Your task to perform on an android device: turn on javascript in the chrome app Image 0: 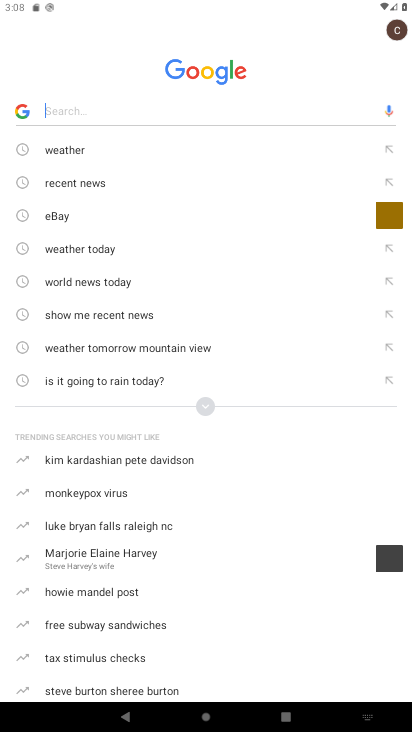
Step 0: press home button
Your task to perform on an android device: turn on javascript in the chrome app Image 1: 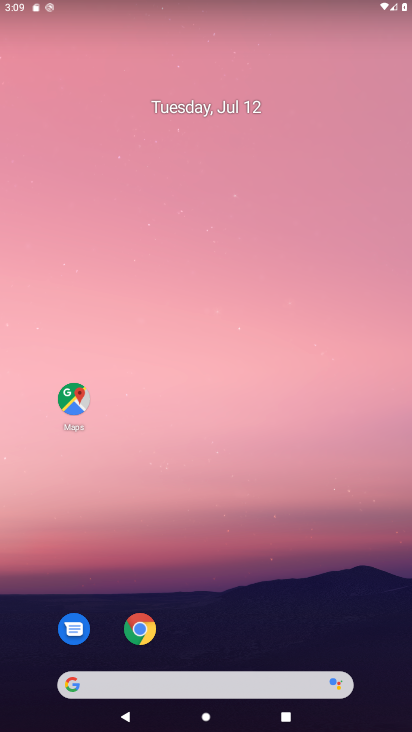
Step 1: drag from (205, 644) to (220, 338)
Your task to perform on an android device: turn on javascript in the chrome app Image 2: 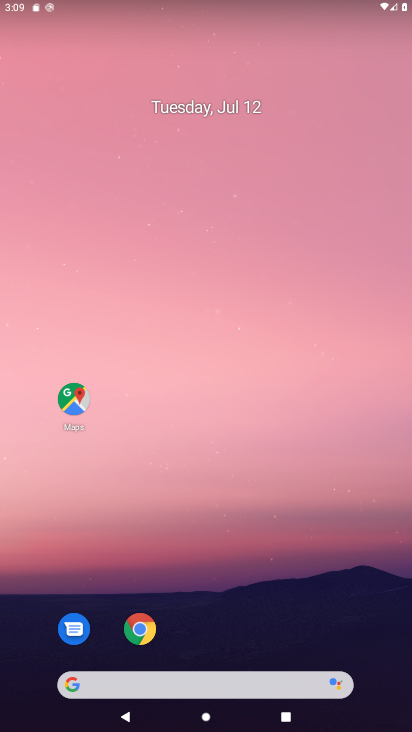
Step 2: drag from (186, 658) to (125, 74)
Your task to perform on an android device: turn on javascript in the chrome app Image 3: 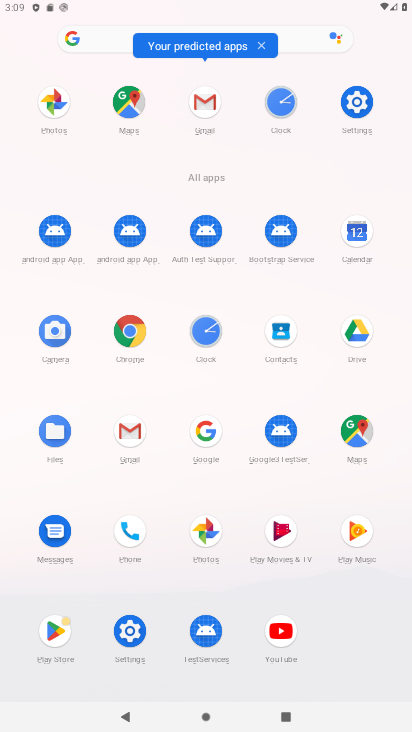
Step 3: click (119, 328)
Your task to perform on an android device: turn on javascript in the chrome app Image 4: 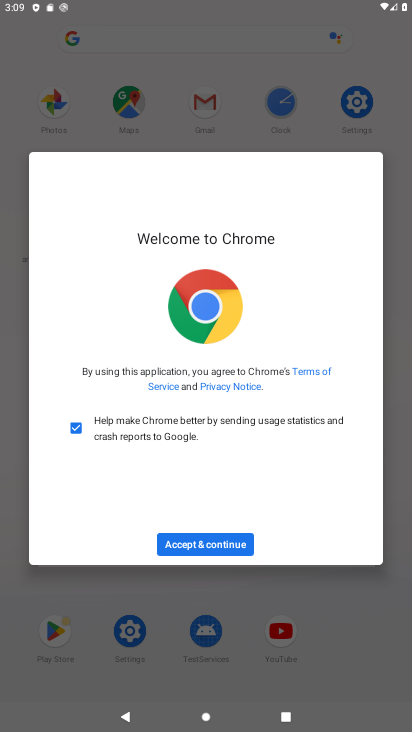
Step 4: click (211, 537)
Your task to perform on an android device: turn on javascript in the chrome app Image 5: 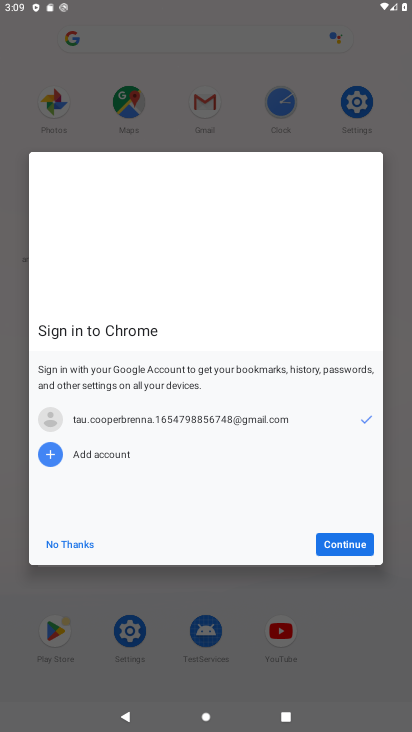
Step 5: click (355, 523)
Your task to perform on an android device: turn on javascript in the chrome app Image 6: 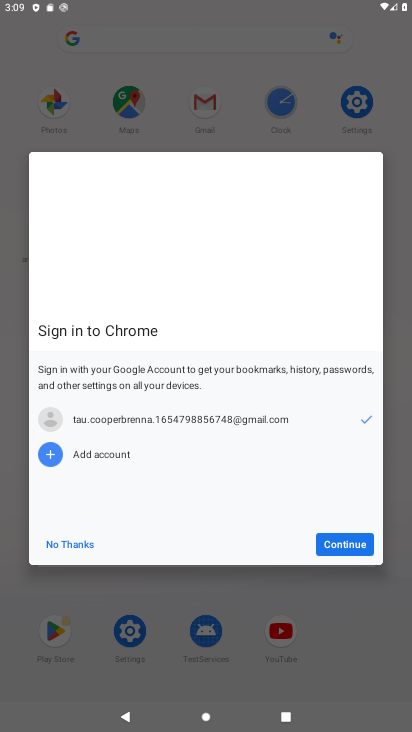
Step 6: click (351, 536)
Your task to perform on an android device: turn on javascript in the chrome app Image 7: 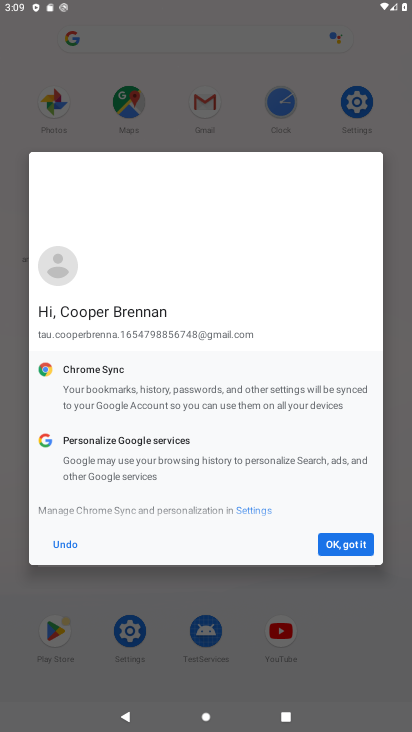
Step 7: click (343, 553)
Your task to perform on an android device: turn on javascript in the chrome app Image 8: 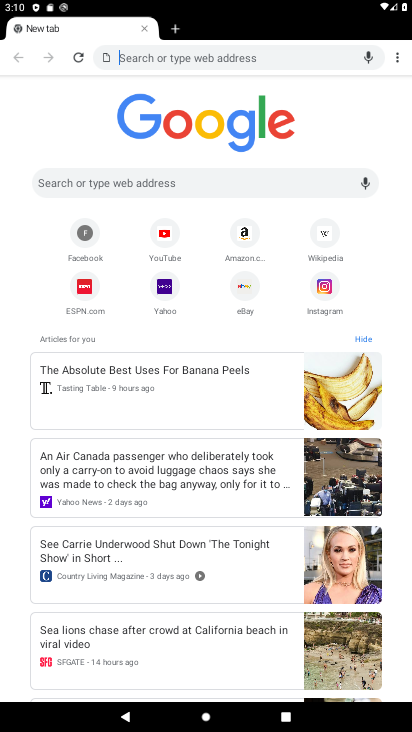
Step 8: click (391, 55)
Your task to perform on an android device: turn on javascript in the chrome app Image 9: 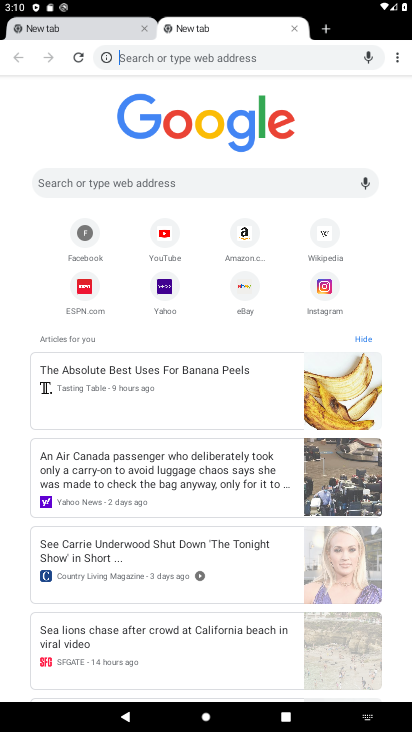
Step 9: drag from (396, 59) to (282, 261)
Your task to perform on an android device: turn on javascript in the chrome app Image 10: 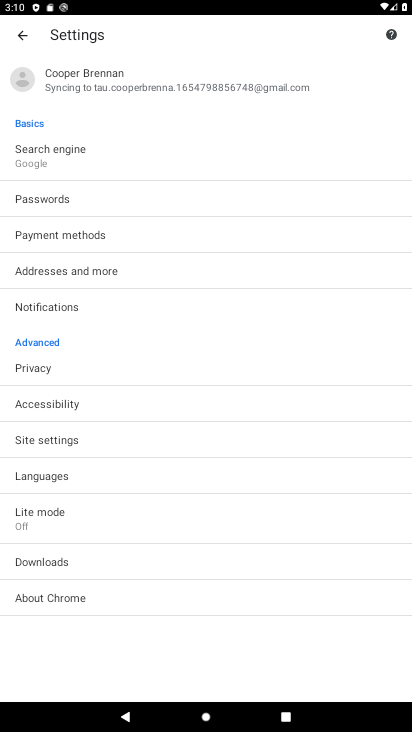
Step 10: click (68, 443)
Your task to perform on an android device: turn on javascript in the chrome app Image 11: 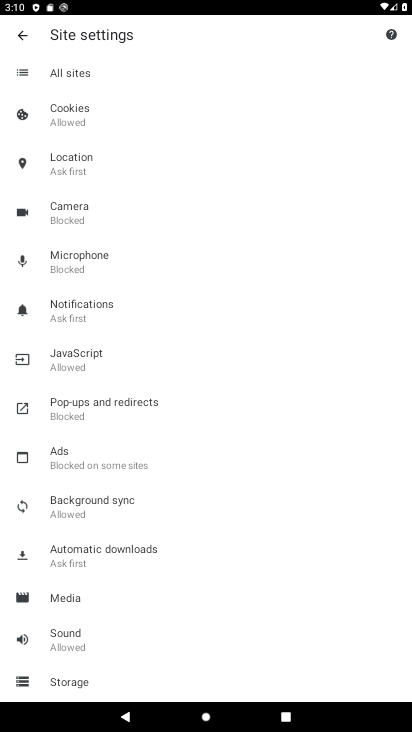
Step 11: click (87, 367)
Your task to perform on an android device: turn on javascript in the chrome app Image 12: 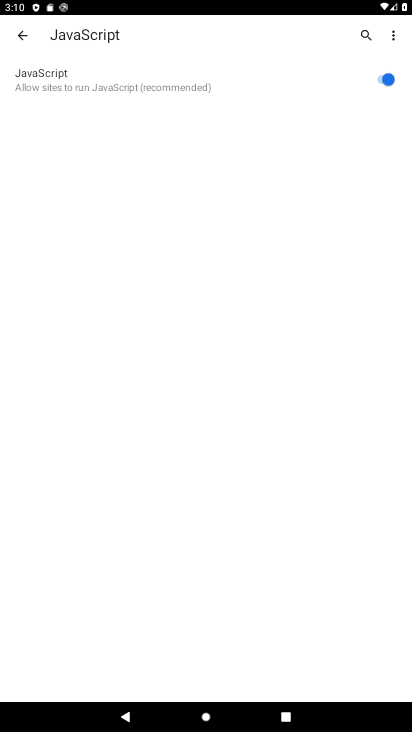
Step 12: task complete